Your task to perform on an android device: What is the recent news? Image 0: 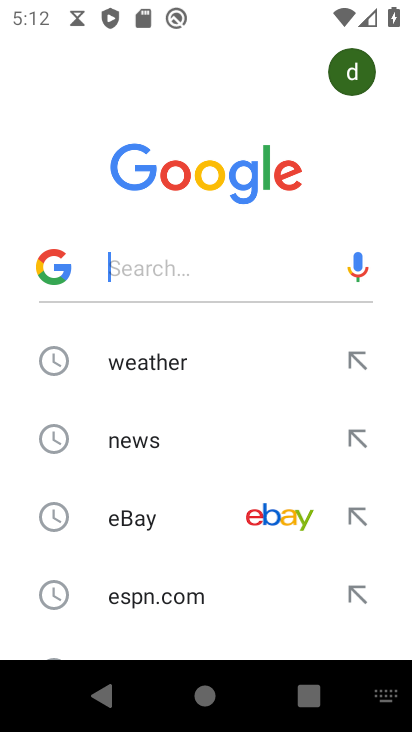
Step 0: drag from (170, 502) to (258, 214)
Your task to perform on an android device: What is the recent news? Image 1: 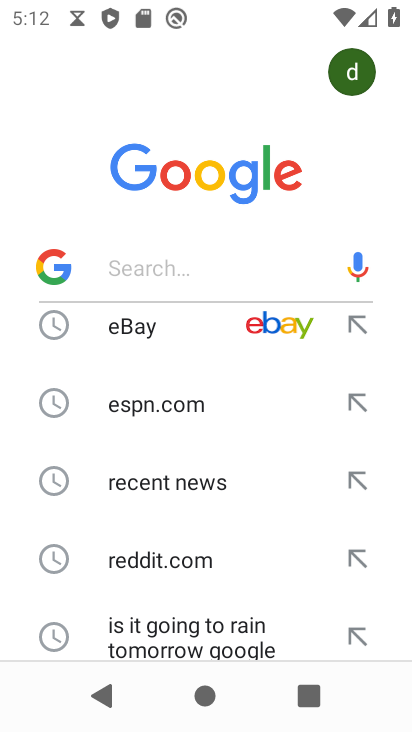
Step 1: click (164, 485)
Your task to perform on an android device: What is the recent news? Image 2: 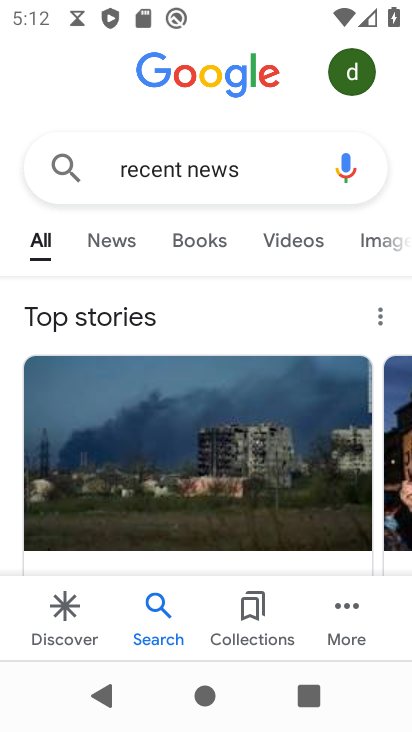
Step 2: task complete